Your task to perform on an android device: What's on my calendar today? Image 0: 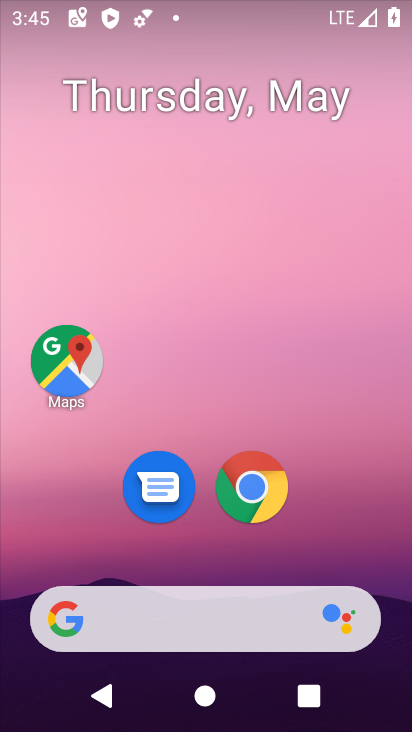
Step 0: drag from (189, 625) to (211, 317)
Your task to perform on an android device: What's on my calendar today? Image 1: 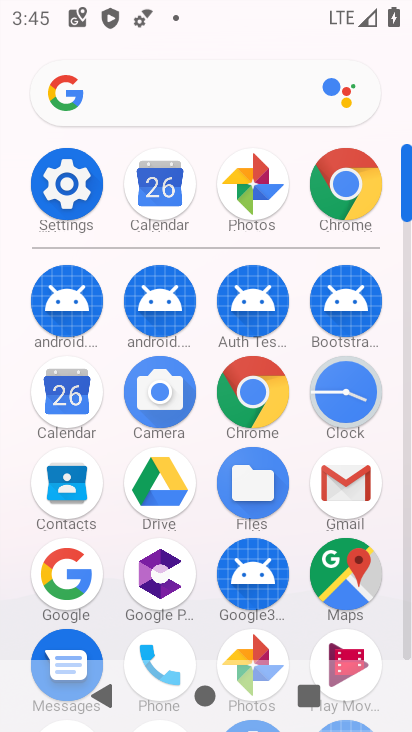
Step 1: click (63, 410)
Your task to perform on an android device: What's on my calendar today? Image 2: 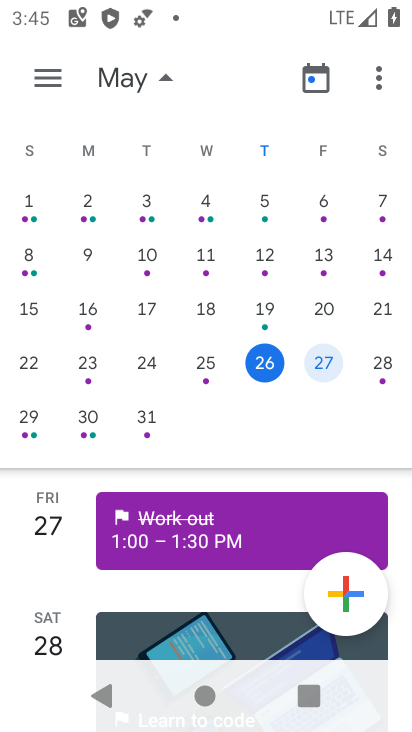
Step 2: click (270, 361)
Your task to perform on an android device: What's on my calendar today? Image 3: 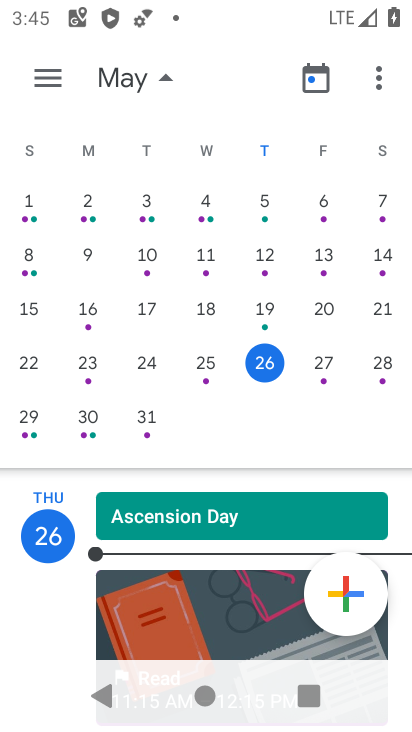
Step 3: task complete